Your task to perform on an android device: delete location history Image 0: 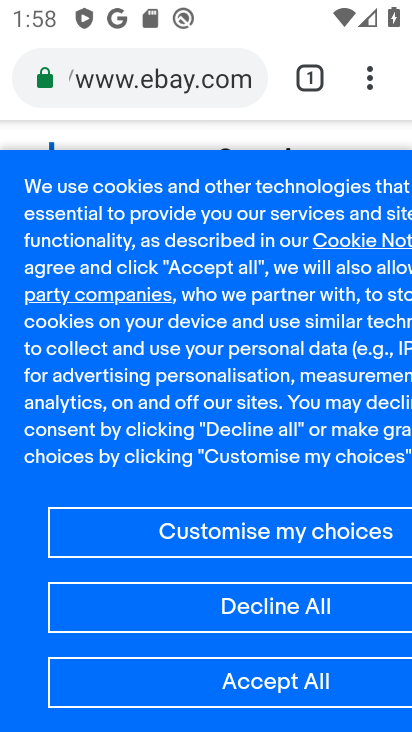
Step 0: press back button
Your task to perform on an android device: delete location history Image 1: 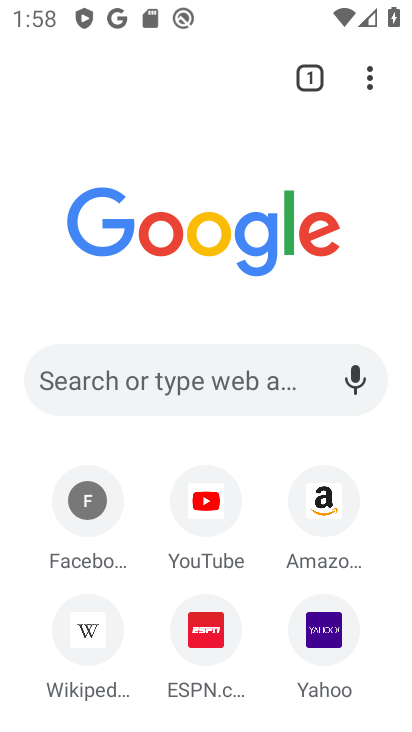
Step 1: press back button
Your task to perform on an android device: delete location history Image 2: 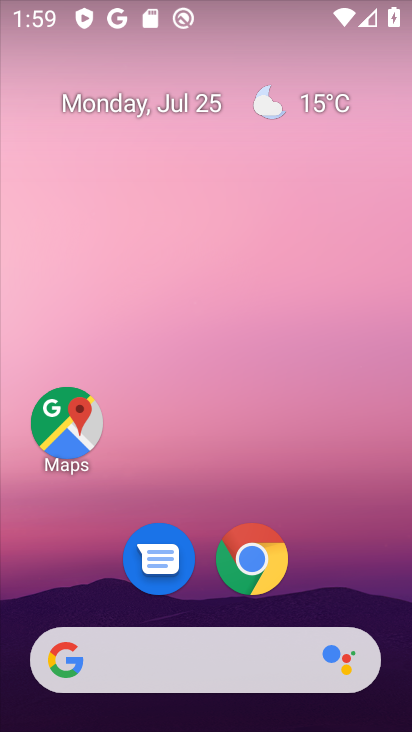
Step 2: click (66, 419)
Your task to perform on an android device: delete location history Image 3: 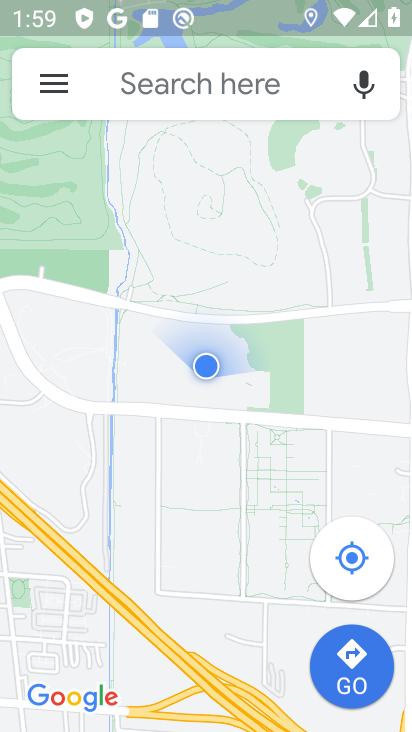
Step 3: click (57, 96)
Your task to perform on an android device: delete location history Image 4: 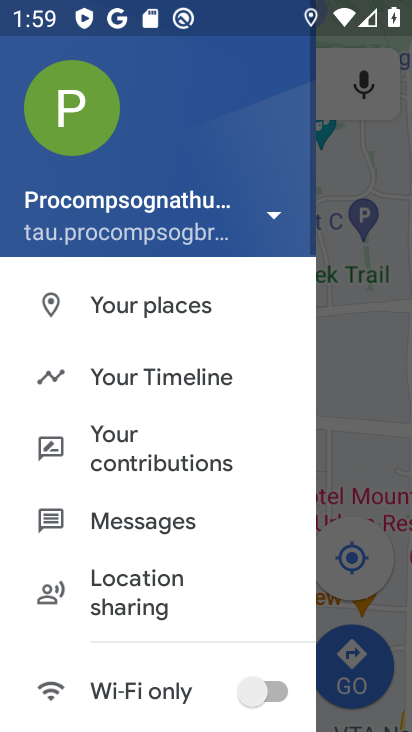
Step 4: click (159, 381)
Your task to perform on an android device: delete location history Image 5: 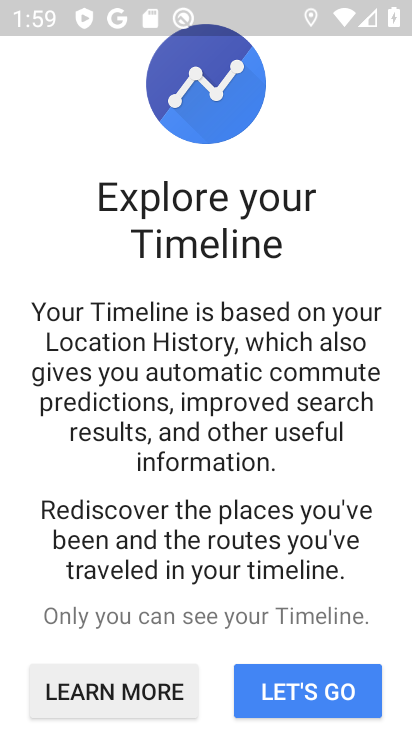
Step 5: click (301, 697)
Your task to perform on an android device: delete location history Image 6: 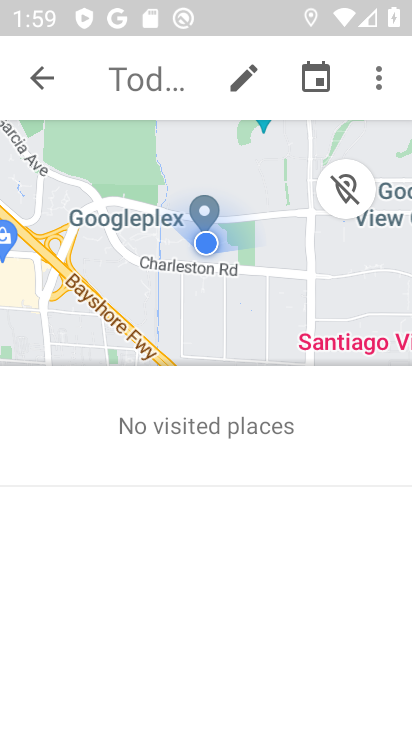
Step 6: click (367, 54)
Your task to perform on an android device: delete location history Image 7: 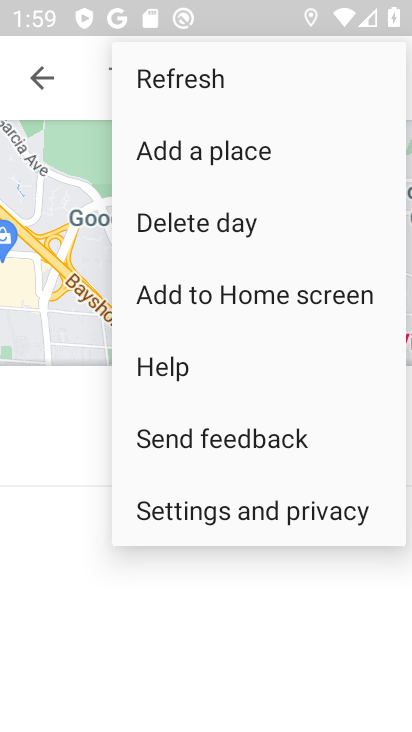
Step 7: click (182, 523)
Your task to perform on an android device: delete location history Image 8: 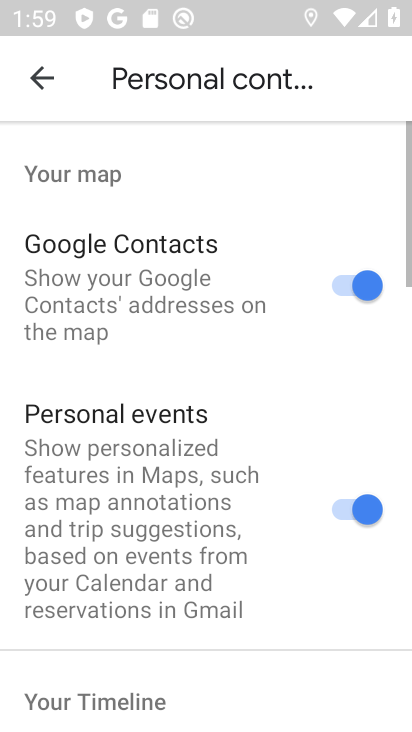
Step 8: drag from (118, 614) to (209, 1)
Your task to perform on an android device: delete location history Image 9: 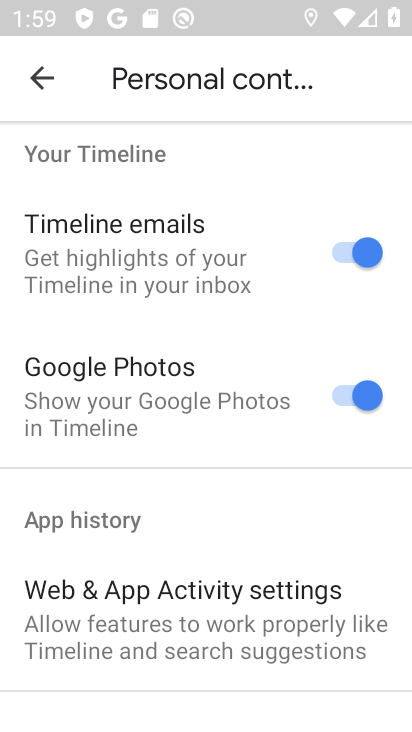
Step 9: drag from (158, 628) to (258, 71)
Your task to perform on an android device: delete location history Image 10: 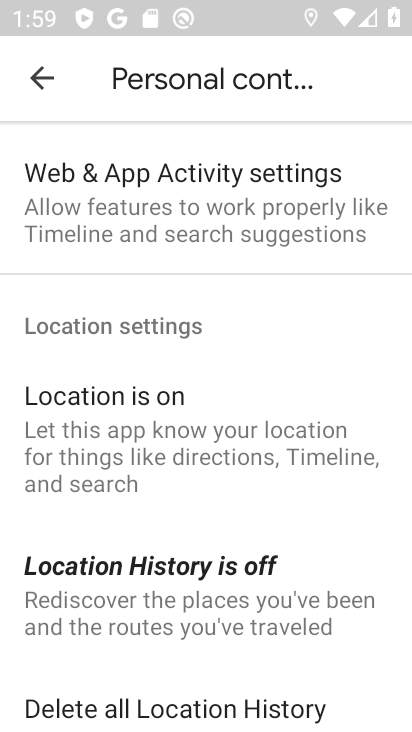
Step 10: click (143, 717)
Your task to perform on an android device: delete location history Image 11: 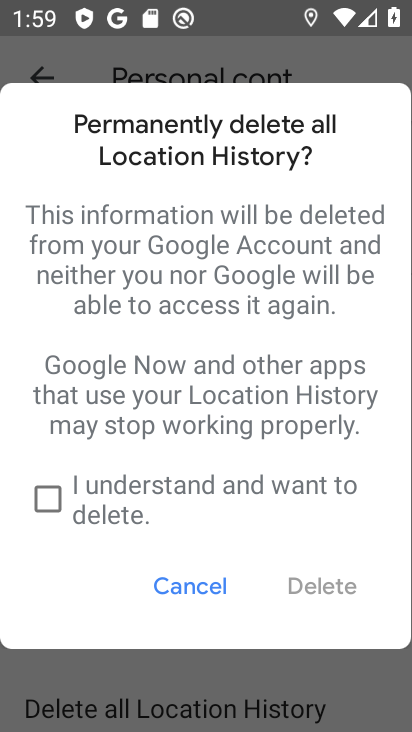
Step 11: click (58, 484)
Your task to perform on an android device: delete location history Image 12: 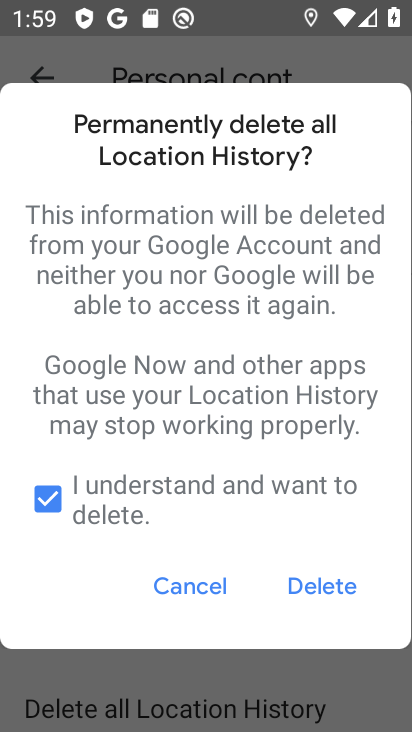
Step 12: click (330, 594)
Your task to perform on an android device: delete location history Image 13: 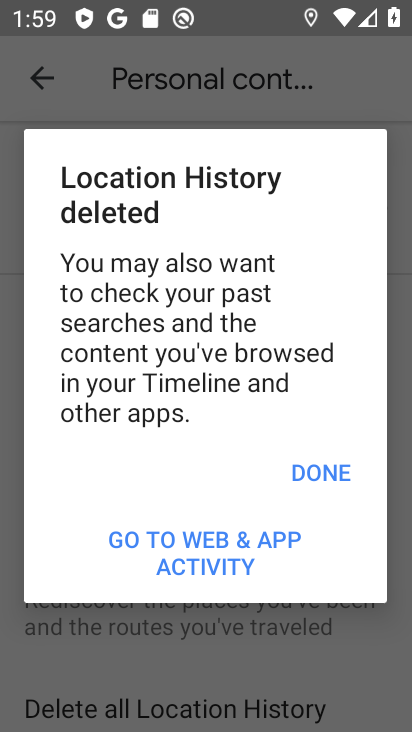
Step 13: click (334, 462)
Your task to perform on an android device: delete location history Image 14: 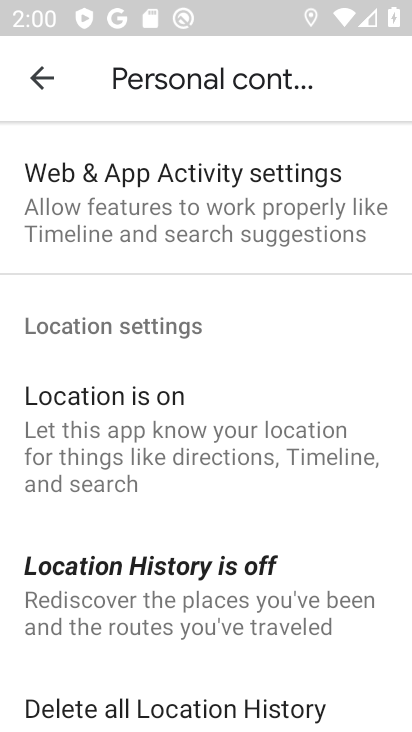
Step 14: click (140, 702)
Your task to perform on an android device: delete location history Image 15: 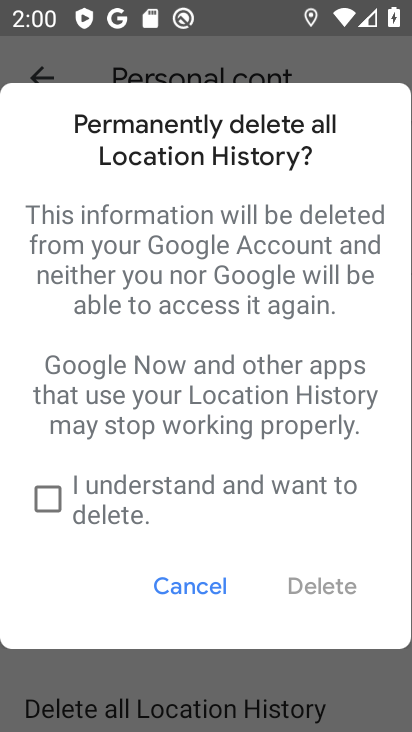
Step 15: click (93, 514)
Your task to perform on an android device: delete location history Image 16: 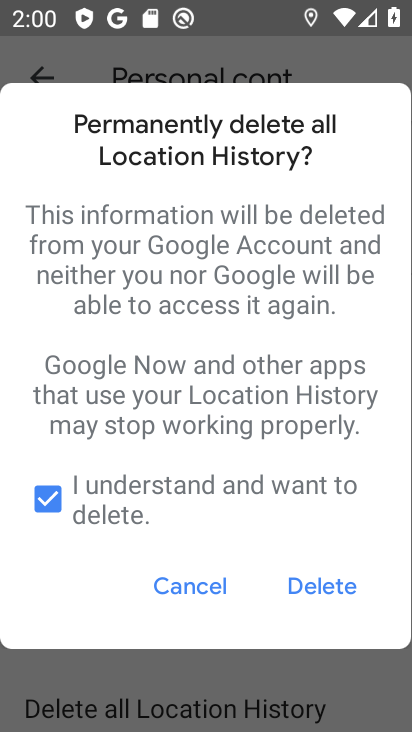
Step 16: task complete